Your task to perform on an android device: Open ESPN.com Image 0: 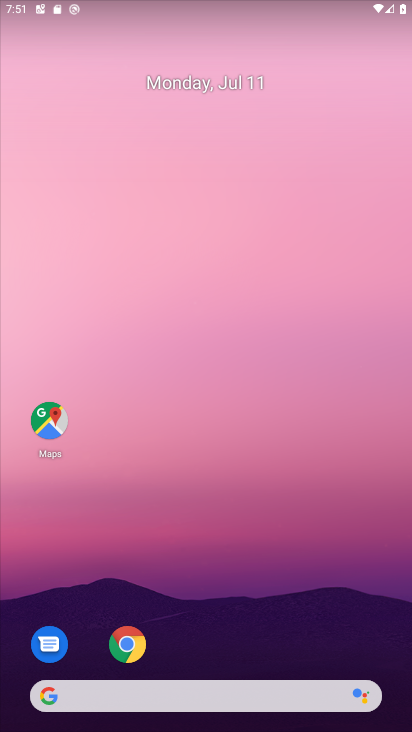
Step 0: drag from (240, 637) to (279, 144)
Your task to perform on an android device: Open ESPN.com Image 1: 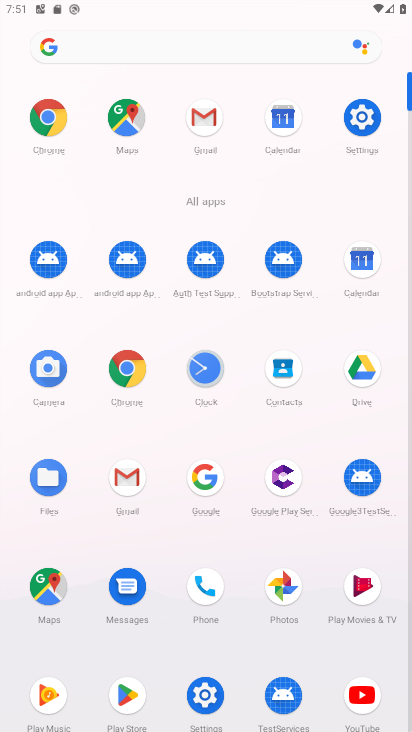
Step 1: click (129, 368)
Your task to perform on an android device: Open ESPN.com Image 2: 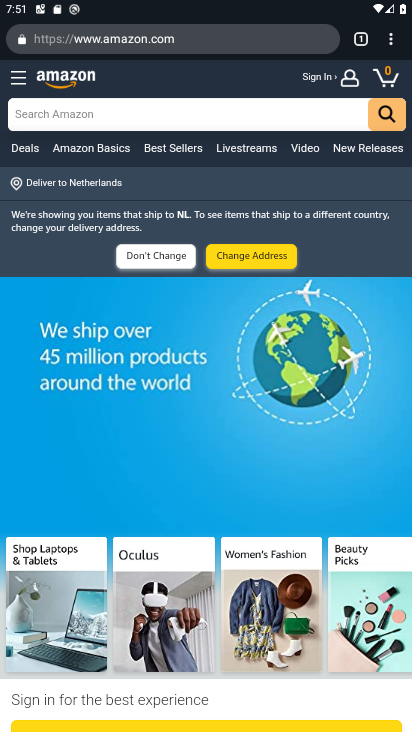
Step 2: click (392, 32)
Your task to perform on an android device: Open ESPN.com Image 3: 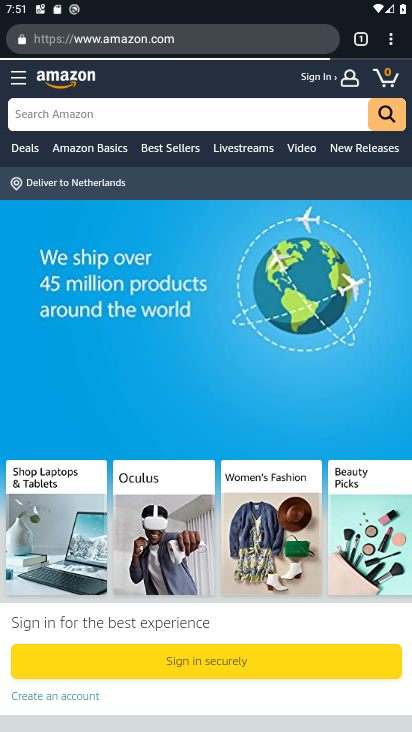
Step 3: click (392, 36)
Your task to perform on an android device: Open ESPN.com Image 4: 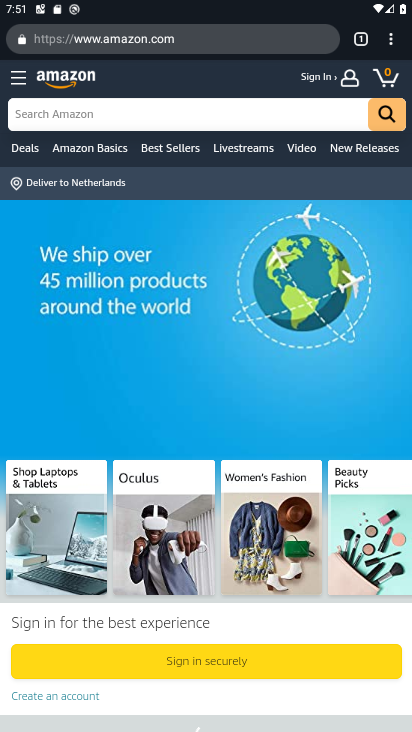
Step 4: click (400, 47)
Your task to perform on an android device: Open ESPN.com Image 5: 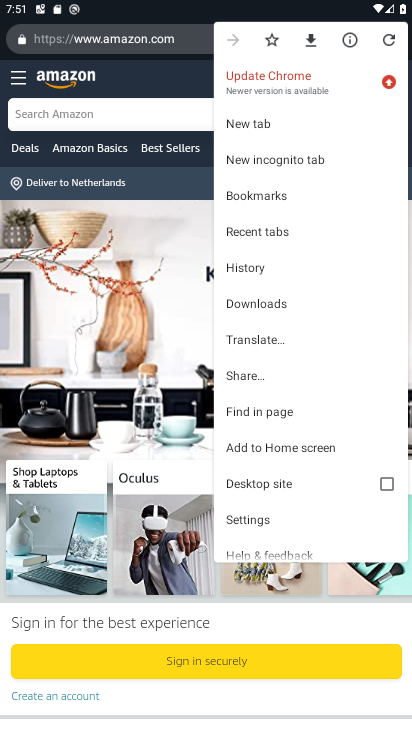
Step 5: click (272, 120)
Your task to perform on an android device: Open ESPN.com Image 6: 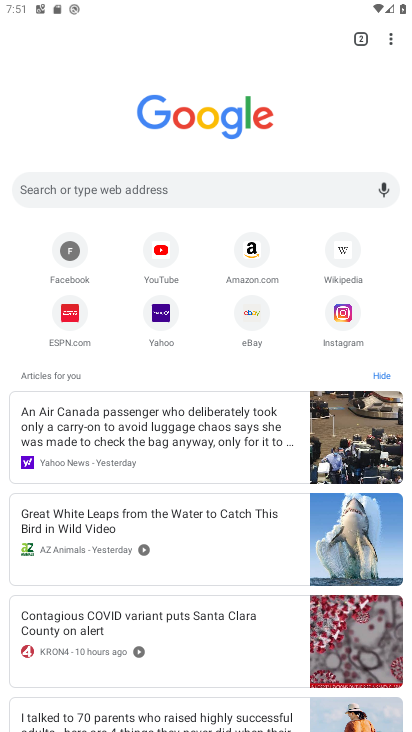
Step 6: click (66, 321)
Your task to perform on an android device: Open ESPN.com Image 7: 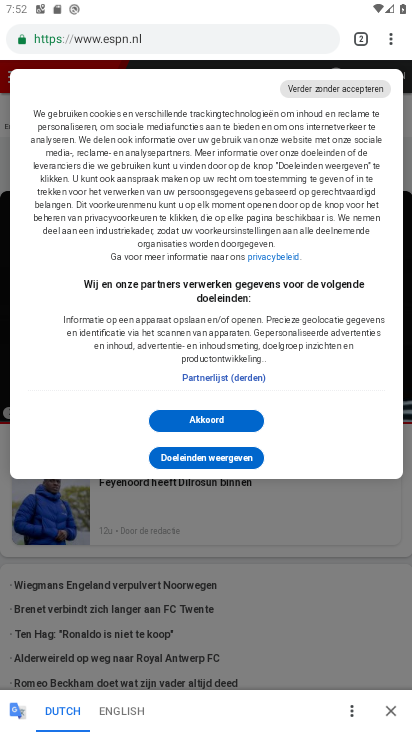
Step 7: task complete